Your task to perform on an android device: change the clock display to analog Image 0: 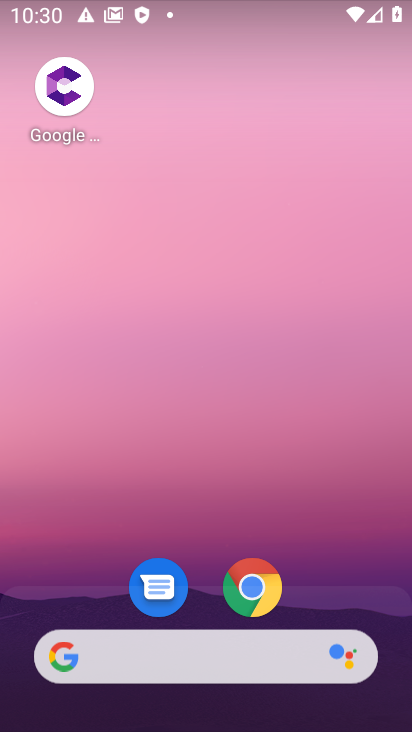
Step 0: drag from (210, 630) to (245, 99)
Your task to perform on an android device: change the clock display to analog Image 1: 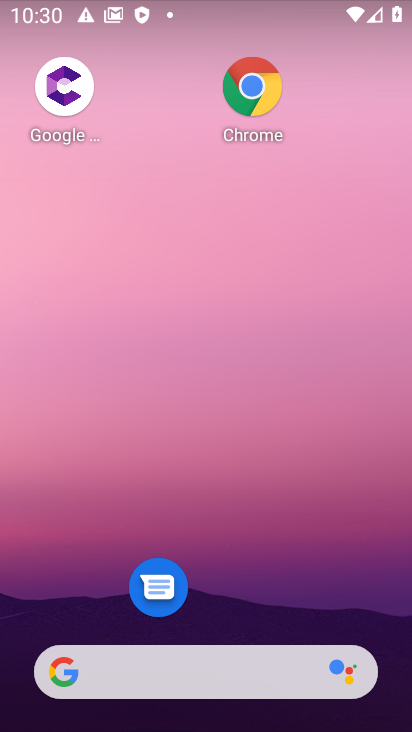
Step 1: drag from (292, 564) to (309, 108)
Your task to perform on an android device: change the clock display to analog Image 2: 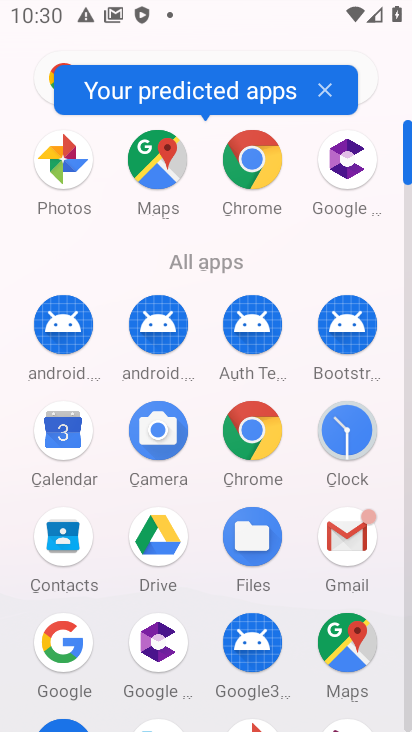
Step 2: click (343, 420)
Your task to perform on an android device: change the clock display to analog Image 3: 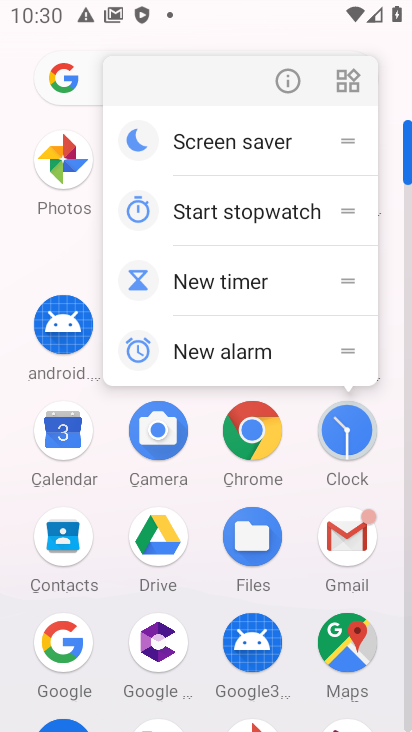
Step 3: click (355, 428)
Your task to perform on an android device: change the clock display to analog Image 4: 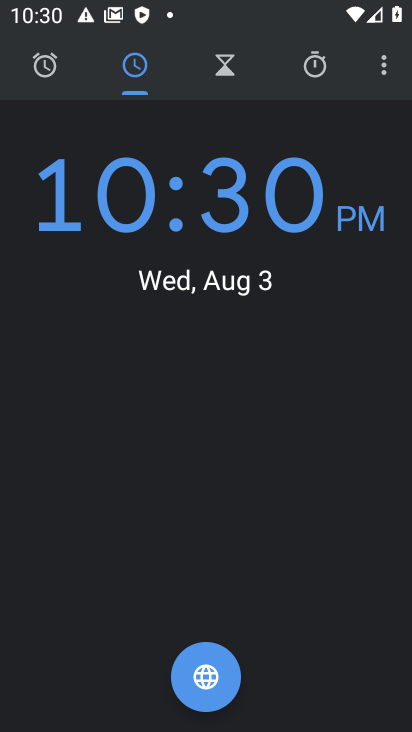
Step 4: click (380, 67)
Your task to perform on an android device: change the clock display to analog Image 5: 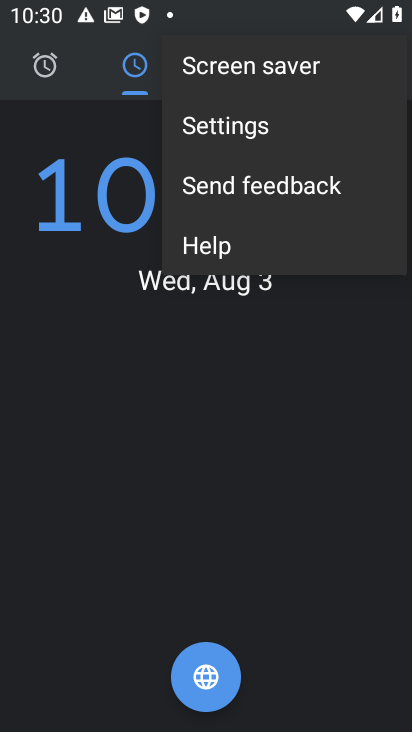
Step 5: click (262, 125)
Your task to perform on an android device: change the clock display to analog Image 6: 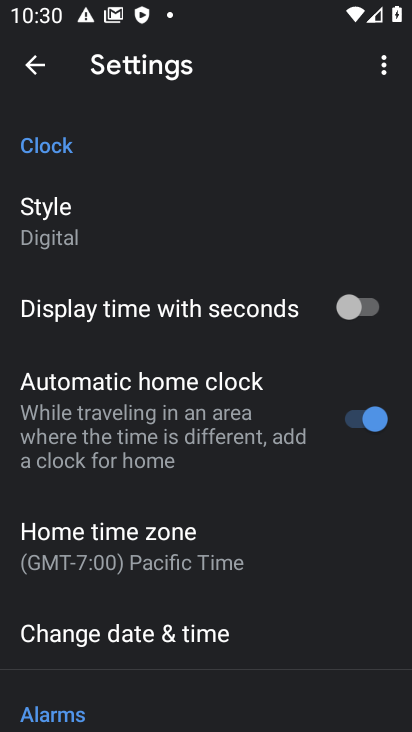
Step 6: click (121, 220)
Your task to perform on an android device: change the clock display to analog Image 7: 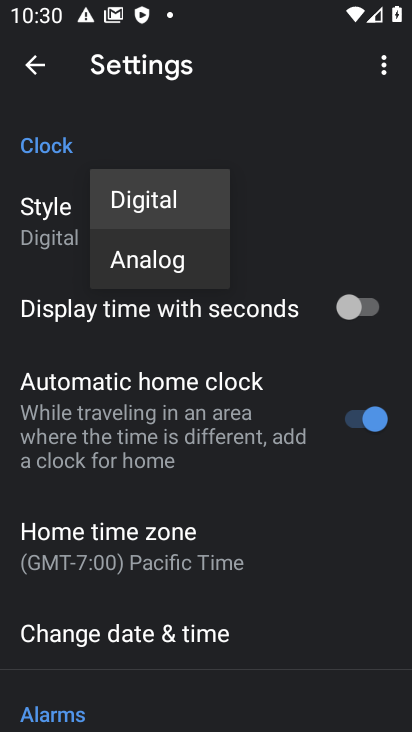
Step 7: click (162, 267)
Your task to perform on an android device: change the clock display to analog Image 8: 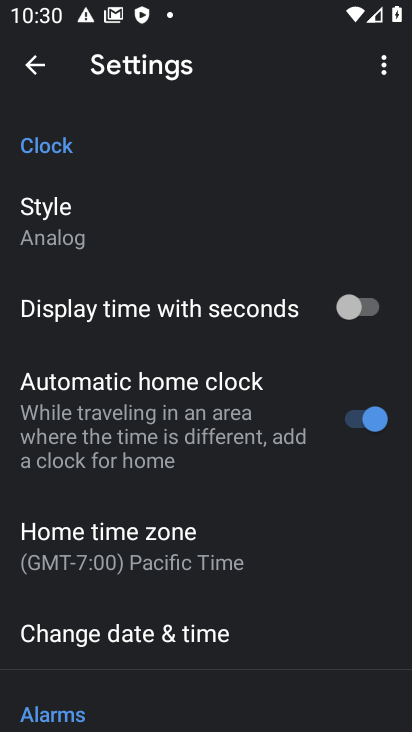
Step 8: task complete